Your task to perform on an android device: choose inbox layout in the gmail app Image 0: 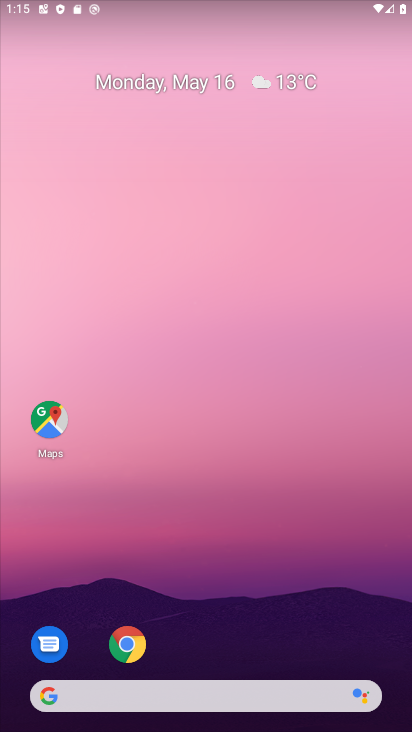
Step 0: drag from (219, 656) to (277, 198)
Your task to perform on an android device: choose inbox layout in the gmail app Image 1: 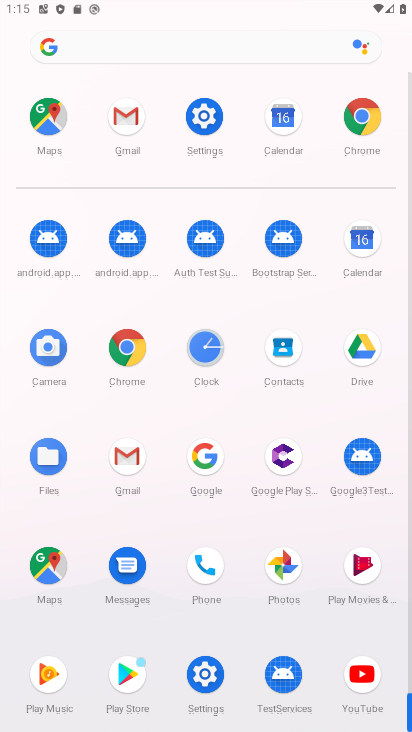
Step 1: click (128, 477)
Your task to perform on an android device: choose inbox layout in the gmail app Image 2: 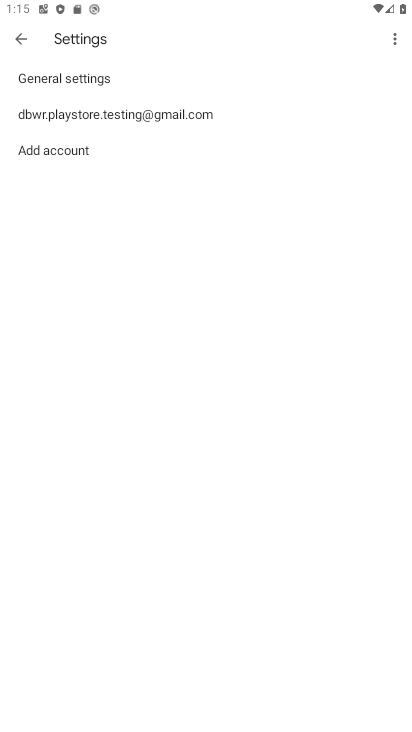
Step 2: click (96, 83)
Your task to perform on an android device: choose inbox layout in the gmail app Image 3: 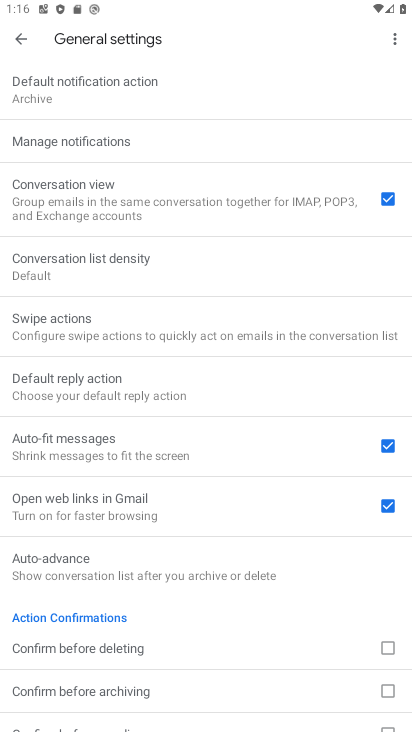
Step 3: task complete